Your task to perform on an android device: Open the calendar app, open the side menu, and click the "Day" option Image 0: 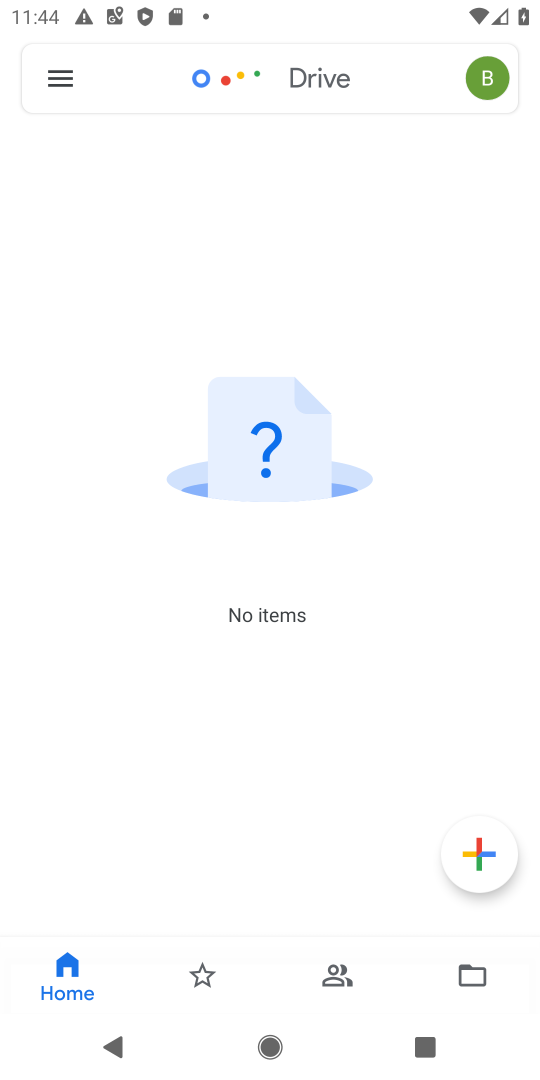
Step 0: press home button
Your task to perform on an android device: Open the calendar app, open the side menu, and click the "Day" option Image 1: 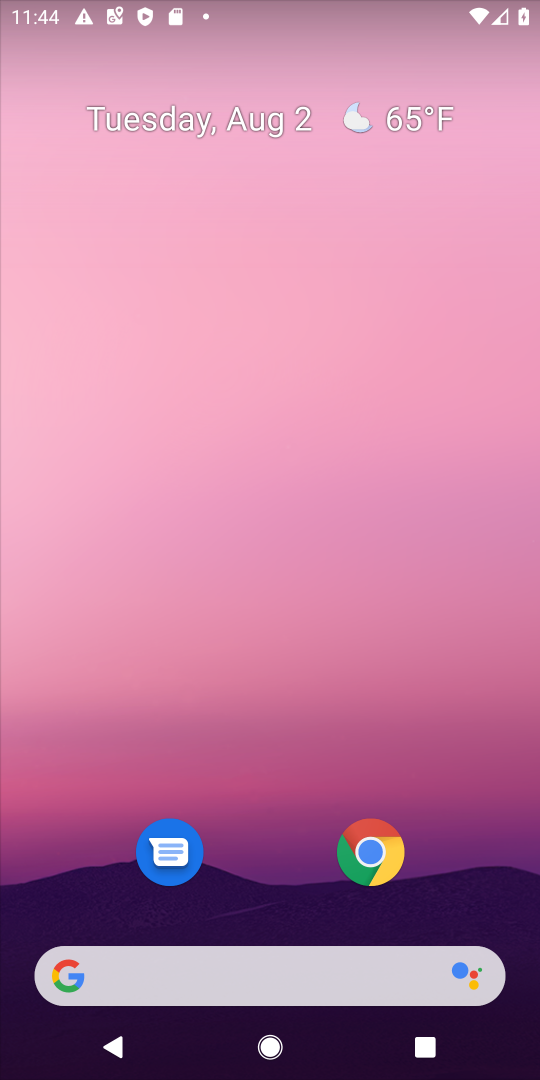
Step 1: drag from (460, 894) to (284, 116)
Your task to perform on an android device: Open the calendar app, open the side menu, and click the "Day" option Image 2: 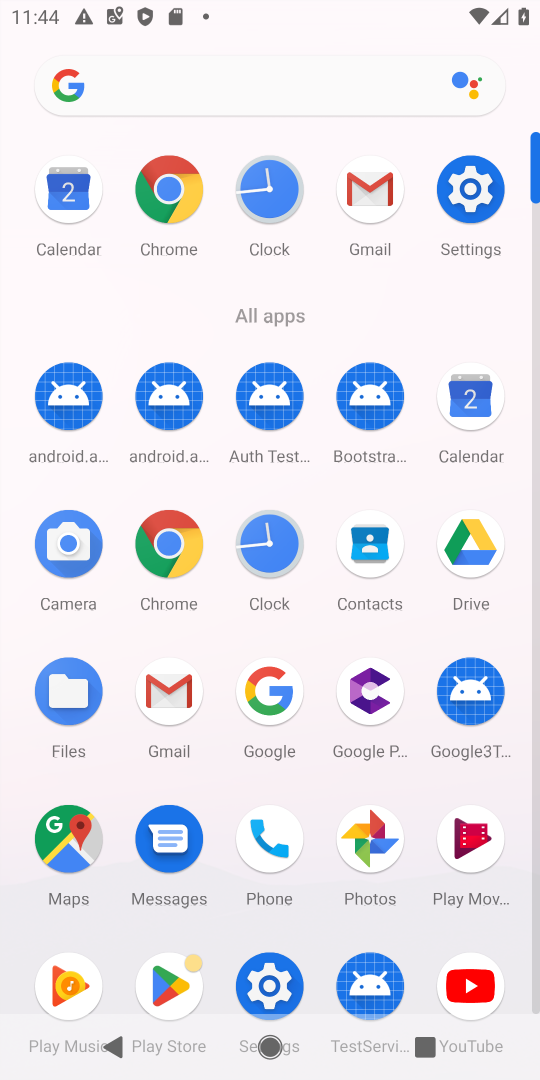
Step 2: click (474, 406)
Your task to perform on an android device: Open the calendar app, open the side menu, and click the "Day" option Image 3: 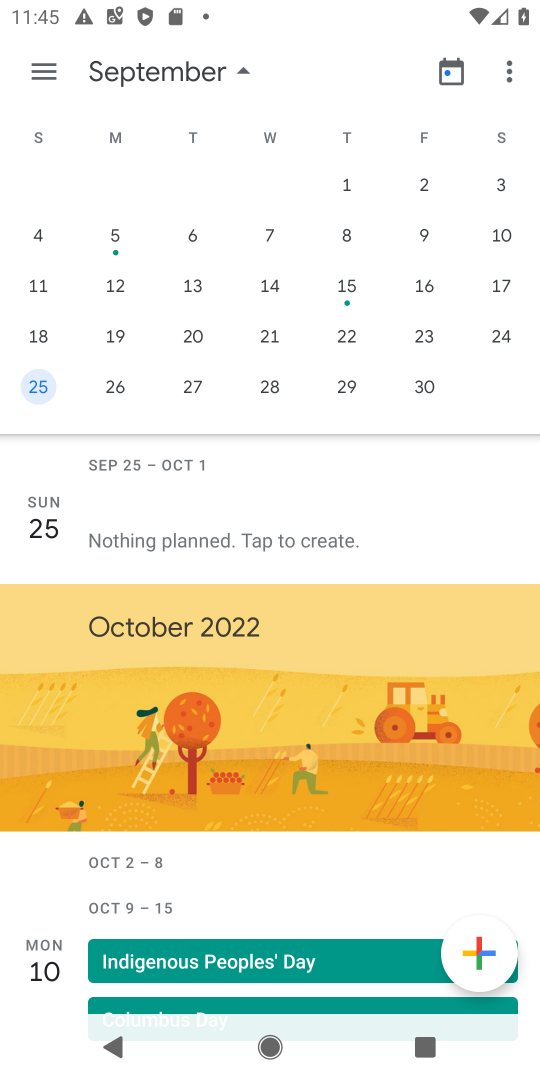
Step 3: click (51, 76)
Your task to perform on an android device: Open the calendar app, open the side menu, and click the "Day" option Image 4: 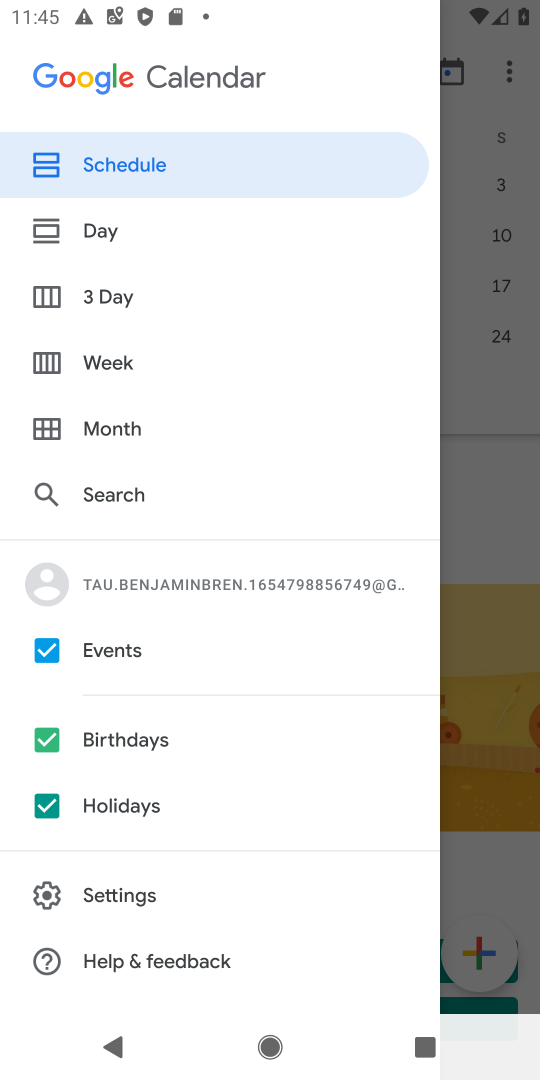
Step 4: click (109, 221)
Your task to perform on an android device: Open the calendar app, open the side menu, and click the "Day" option Image 5: 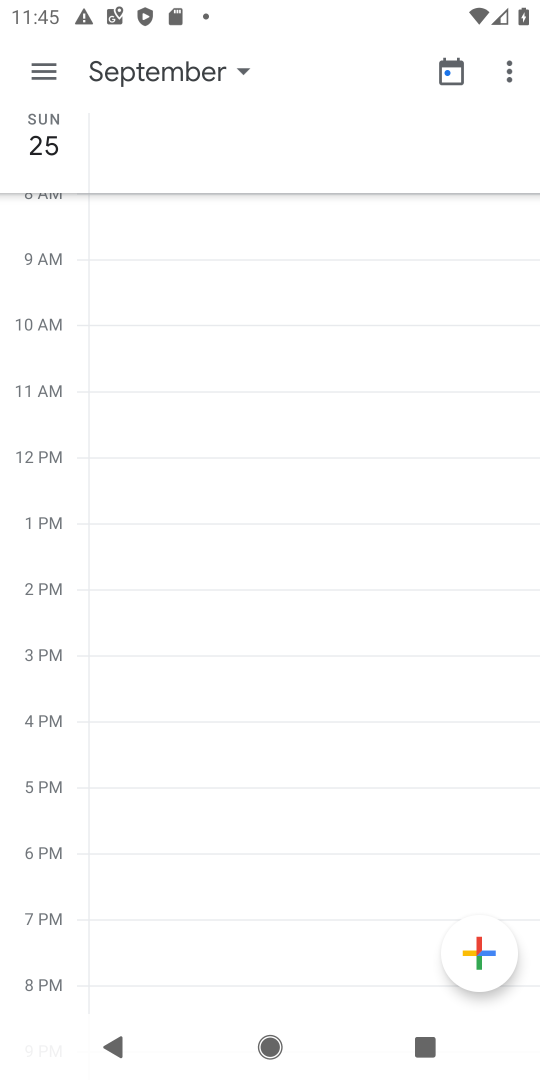
Step 5: task complete